Your task to perform on an android device: uninstall "Booking.com: Hotels and more" Image 0: 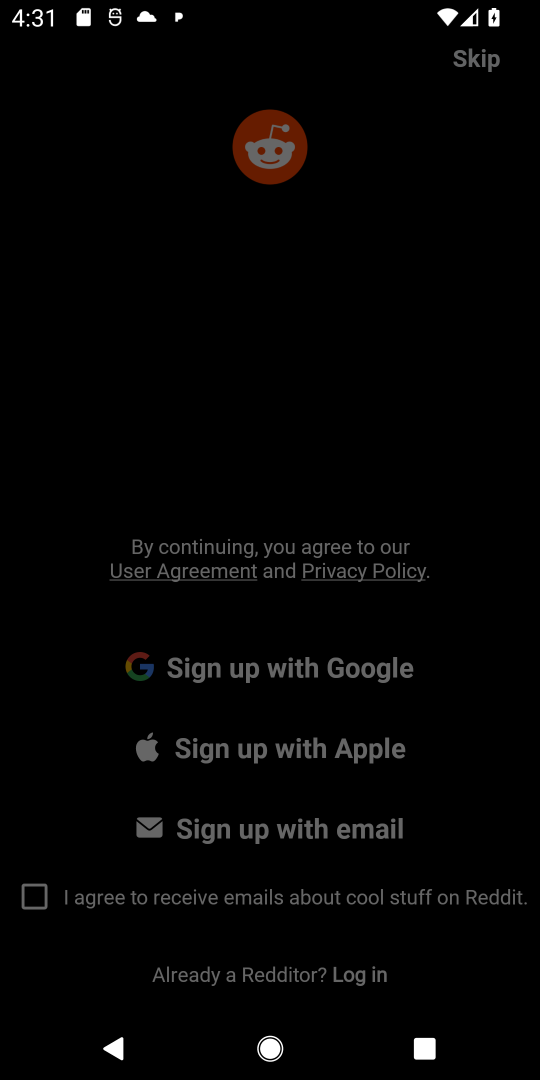
Step 0: click (59, 844)
Your task to perform on an android device: uninstall "Booking.com: Hotels and more" Image 1: 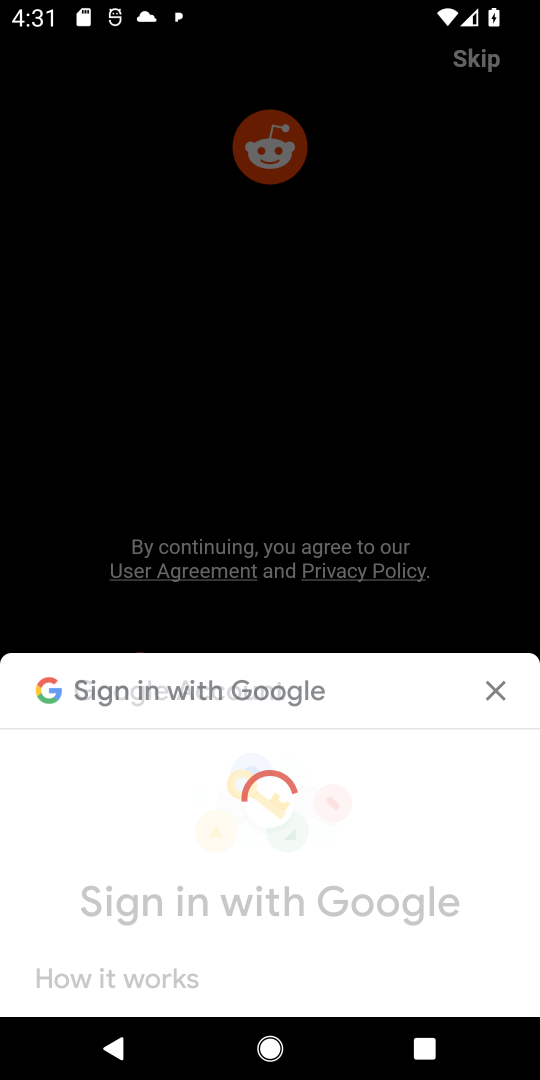
Step 1: press back button
Your task to perform on an android device: uninstall "Booking.com: Hotels and more" Image 2: 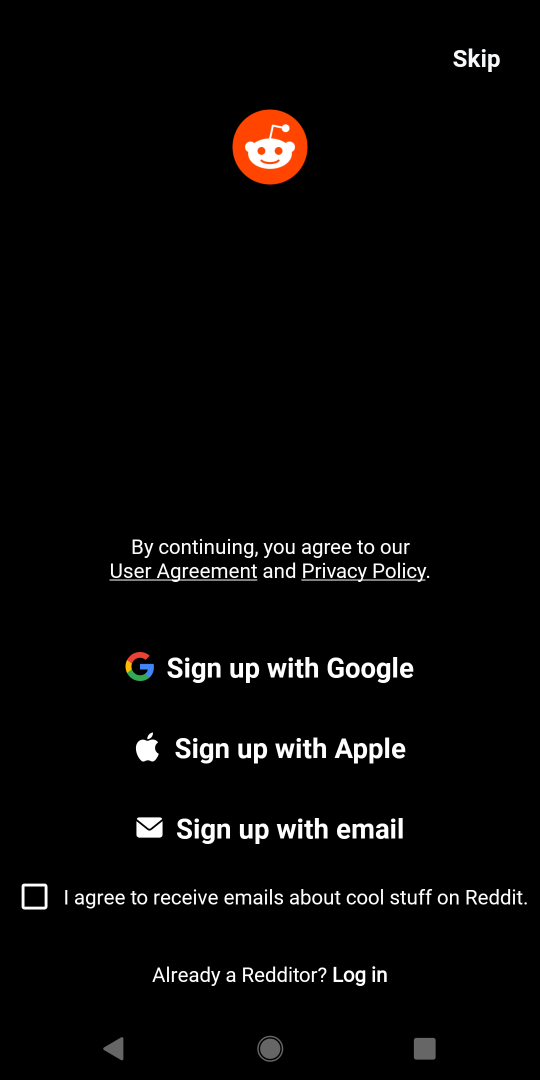
Step 2: press back button
Your task to perform on an android device: uninstall "Booking.com: Hotels and more" Image 3: 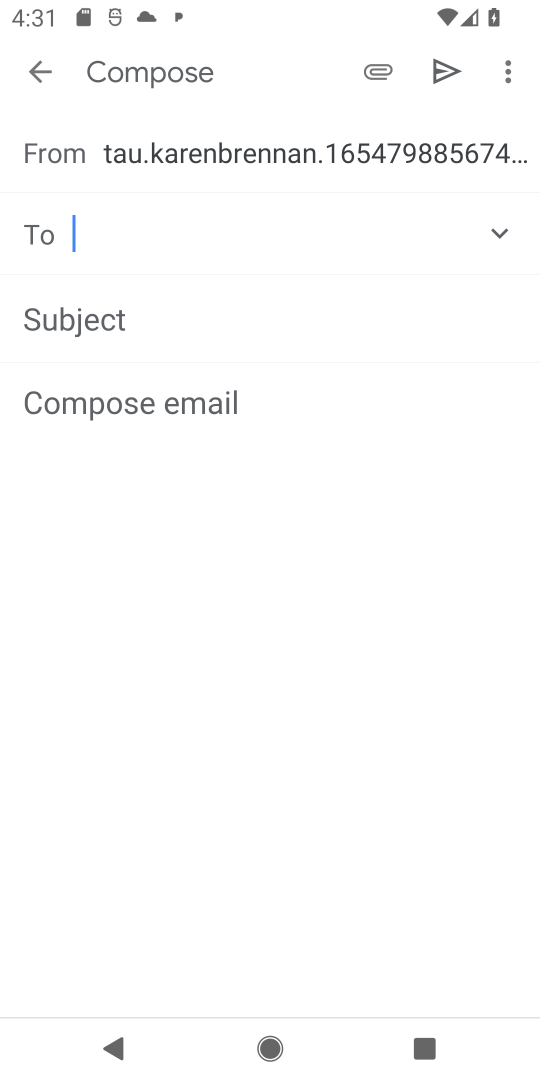
Step 3: press back button
Your task to perform on an android device: uninstall "Booking.com: Hotels and more" Image 4: 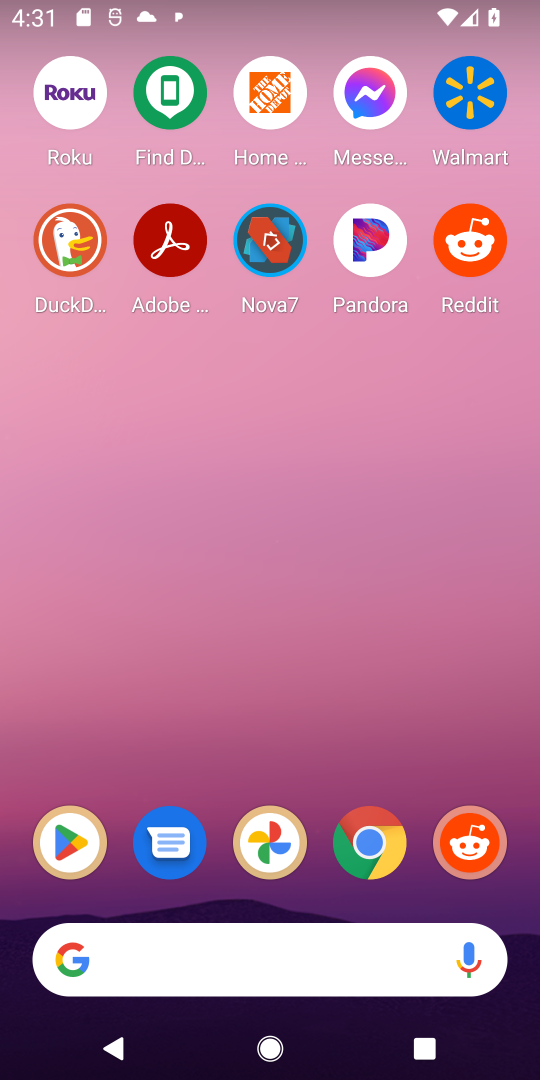
Step 4: press home button
Your task to perform on an android device: uninstall "Booking.com: Hotels and more" Image 5: 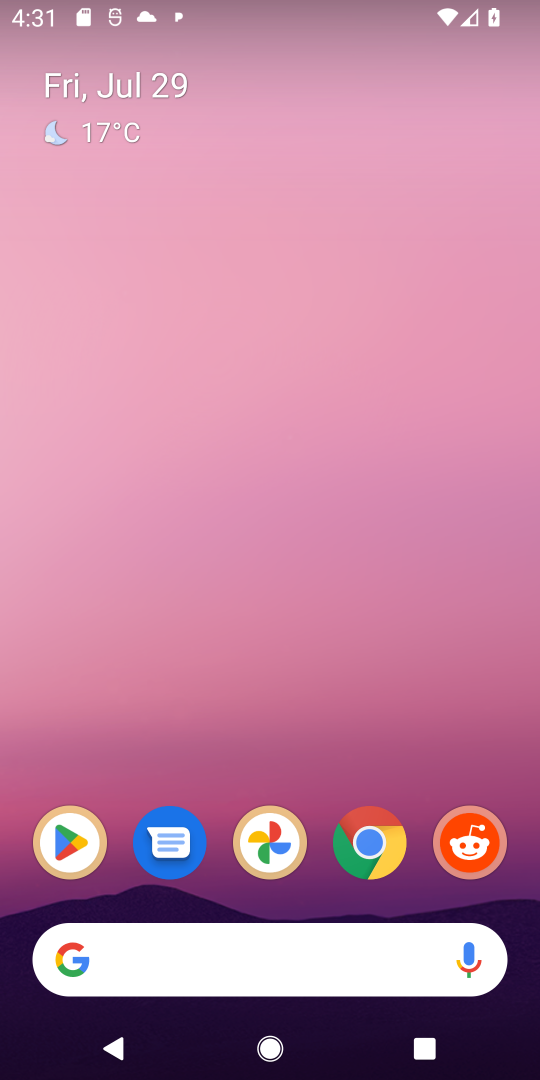
Step 5: click (61, 853)
Your task to perform on an android device: uninstall "Booking.com: Hotels and more" Image 6: 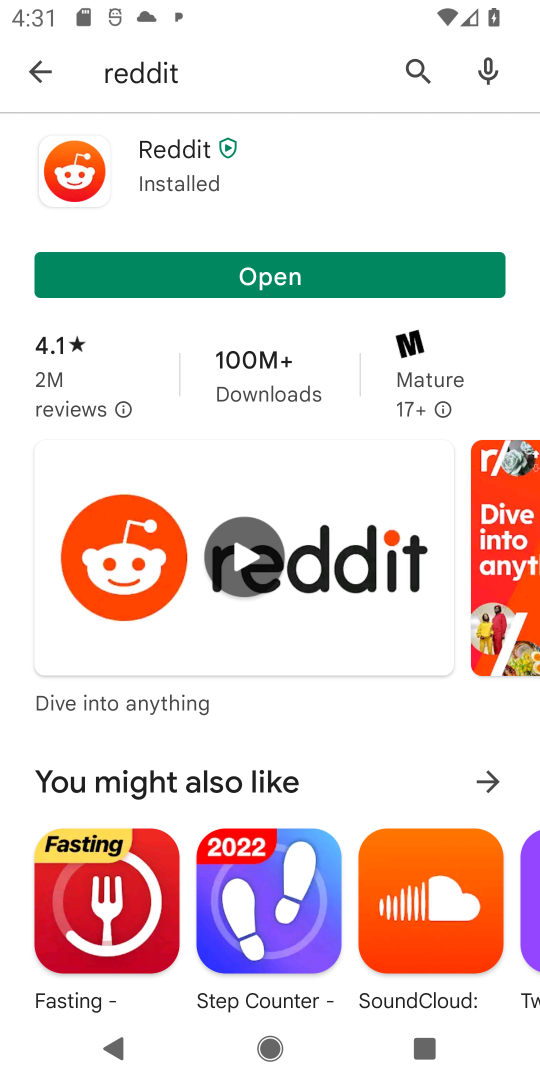
Step 6: click (400, 79)
Your task to perform on an android device: uninstall "Booking.com: Hotels and more" Image 7: 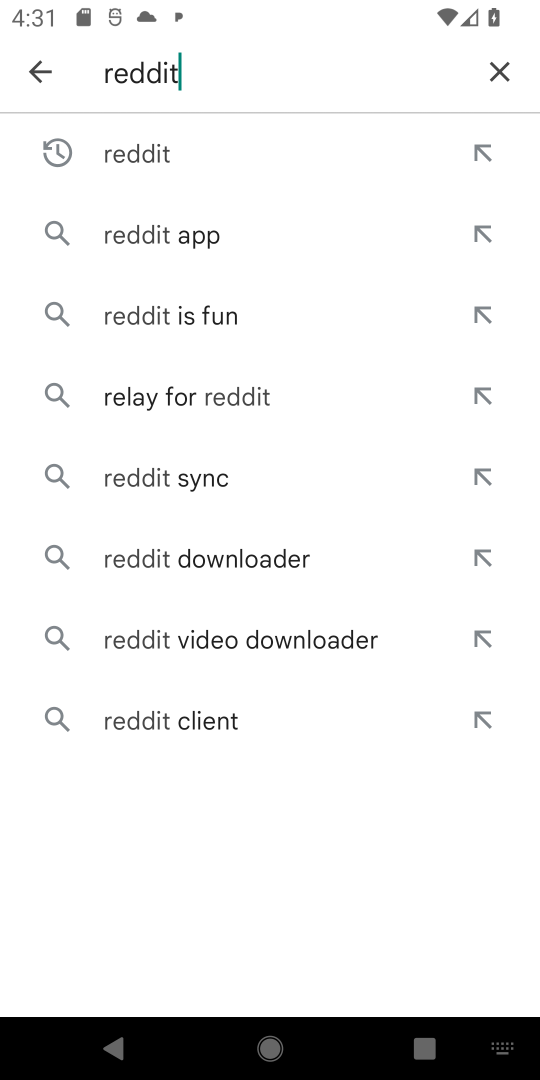
Step 7: click (500, 74)
Your task to perform on an android device: uninstall "Booking.com: Hotels and more" Image 8: 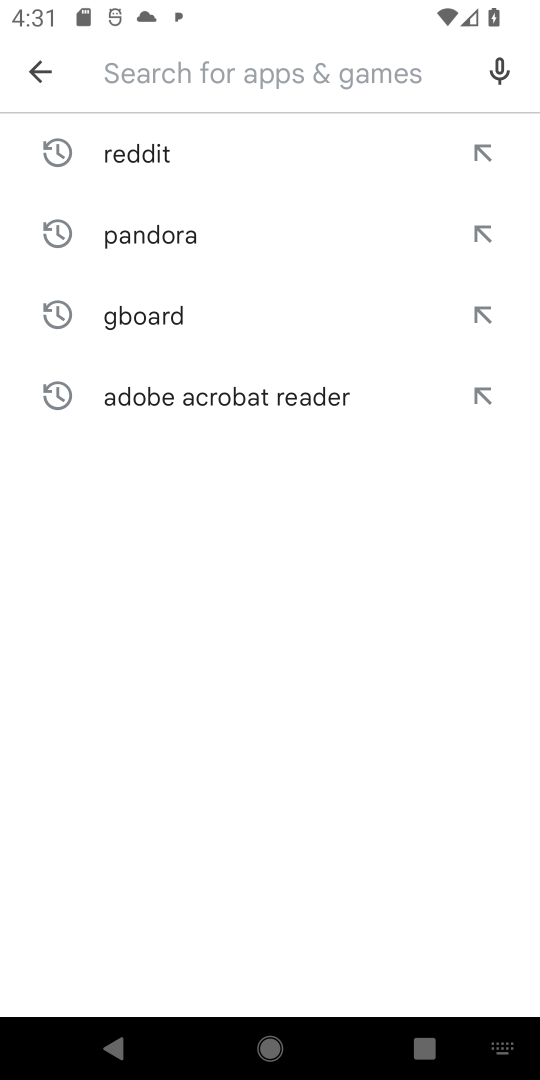
Step 8: click (188, 75)
Your task to perform on an android device: uninstall "Booking.com: Hotels and more" Image 9: 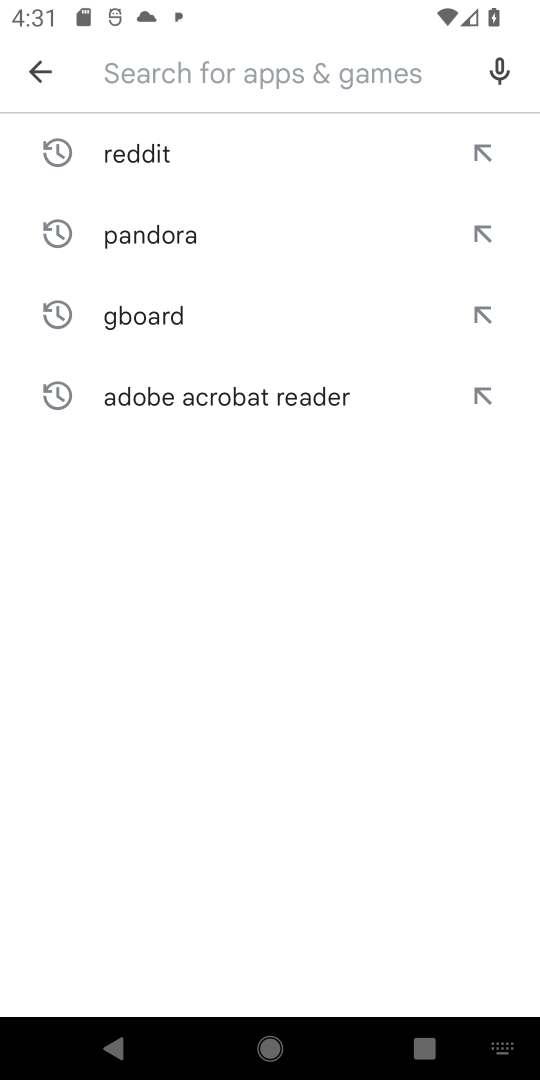
Step 9: type "booking.com"
Your task to perform on an android device: uninstall "Booking.com: Hotels and more" Image 10: 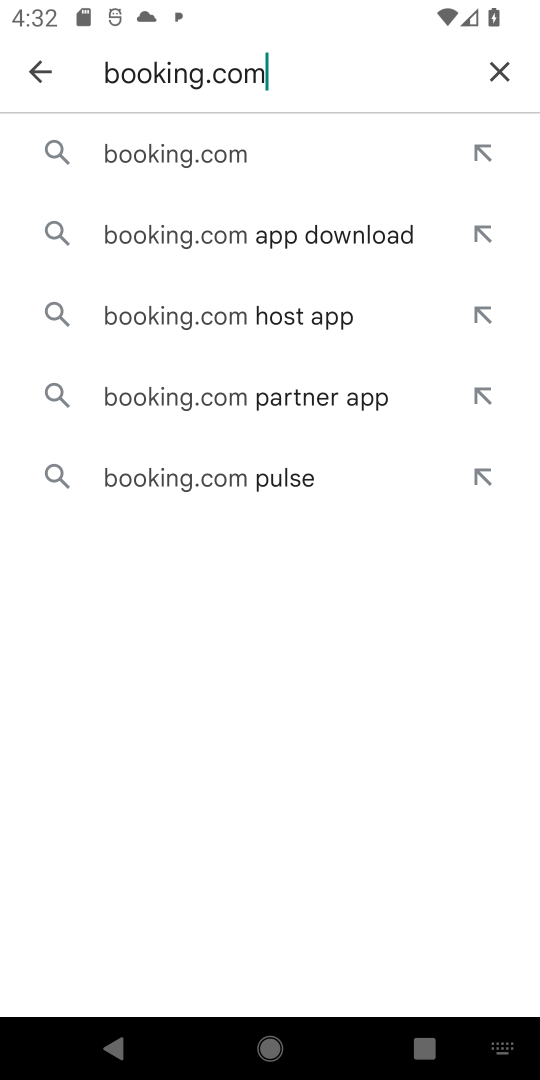
Step 10: click (233, 130)
Your task to perform on an android device: uninstall "Booking.com: Hotels and more" Image 11: 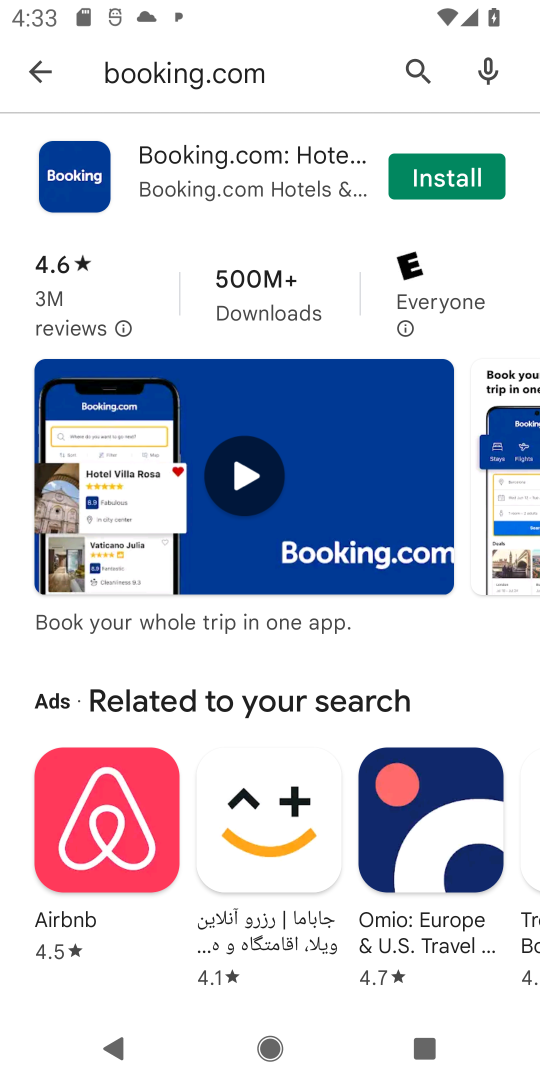
Step 11: click (259, 156)
Your task to perform on an android device: uninstall "Booking.com: Hotels and more" Image 12: 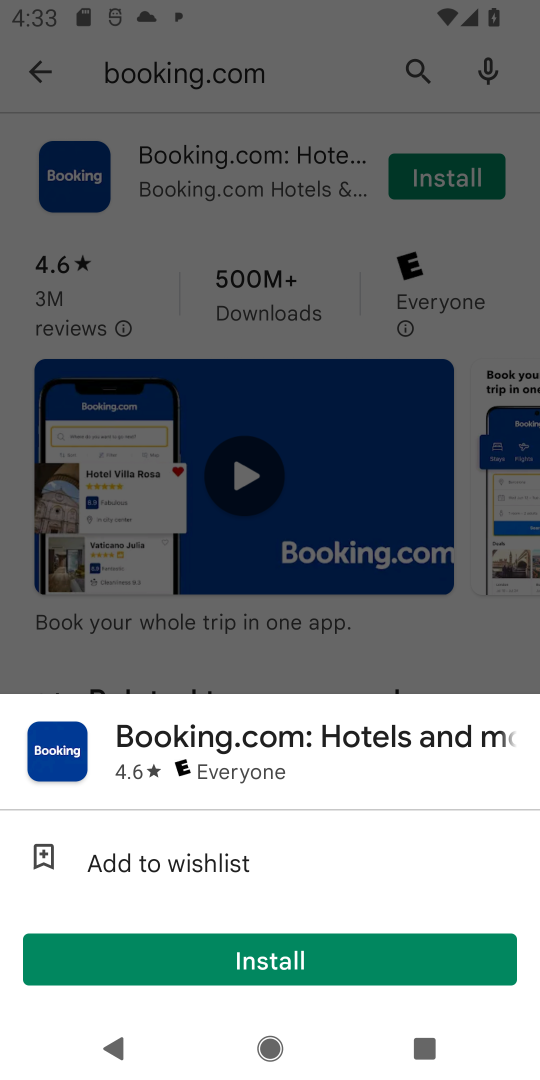
Step 12: task complete